Your task to perform on an android device: See recent photos Image 0: 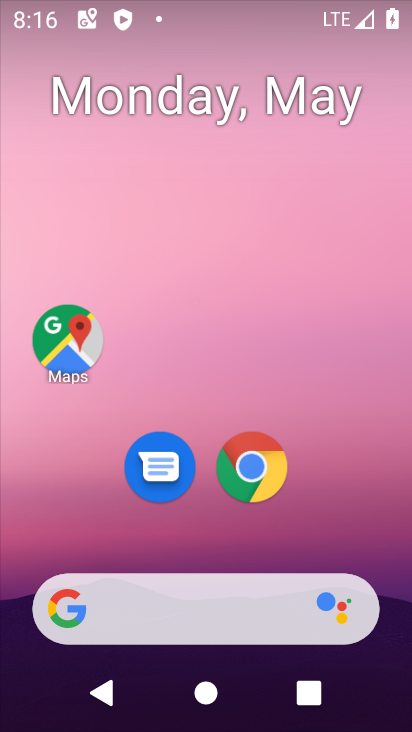
Step 0: drag from (336, 511) to (273, 59)
Your task to perform on an android device: See recent photos Image 1: 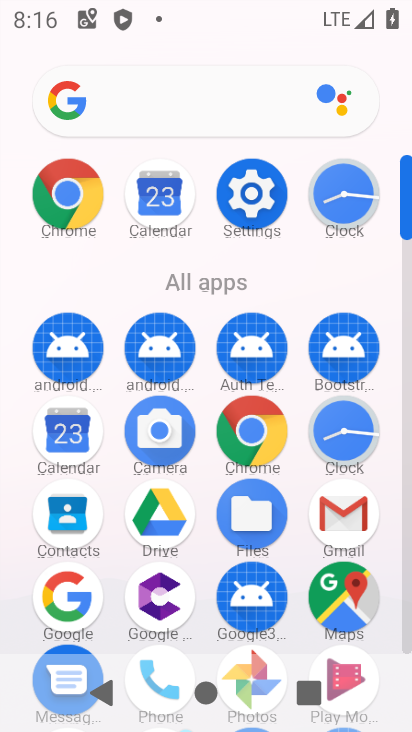
Step 1: drag from (308, 619) to (292, 145)
Your task to perform on an android device: See recent photos Image 2: 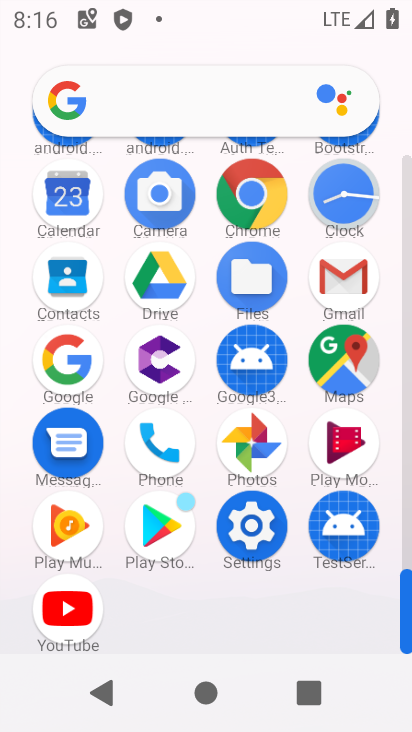
Step 2: click (254, 461)
Your task to perform on an android device: See recent photos Image 3: 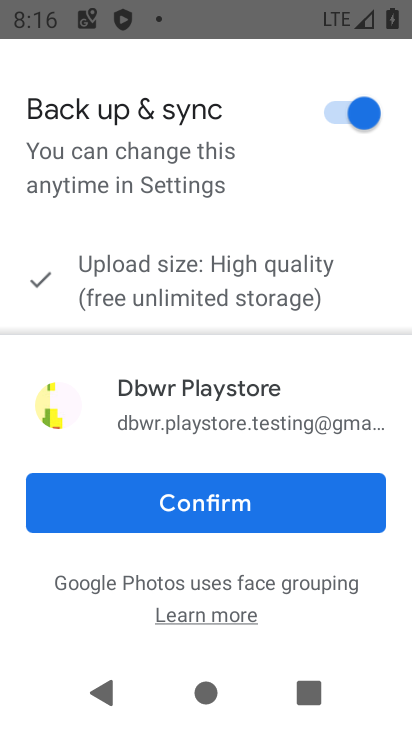
Step 3: click (239, 517)
Your task to perform on an android device: See recent photos Image 4: 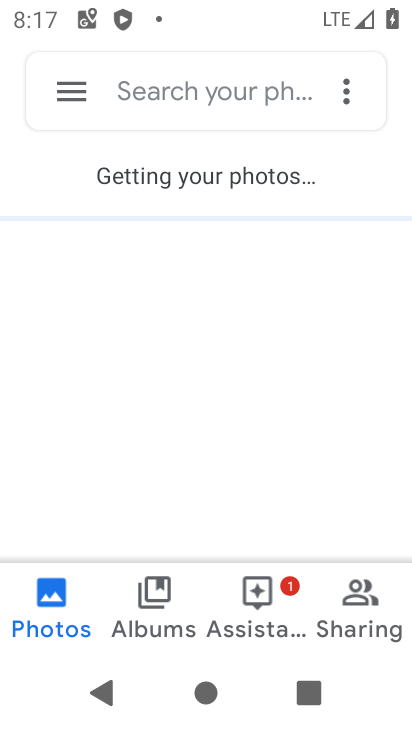
Step 4: click (168, 92)
Your task to perform on an android device: See recent photos Image 5: 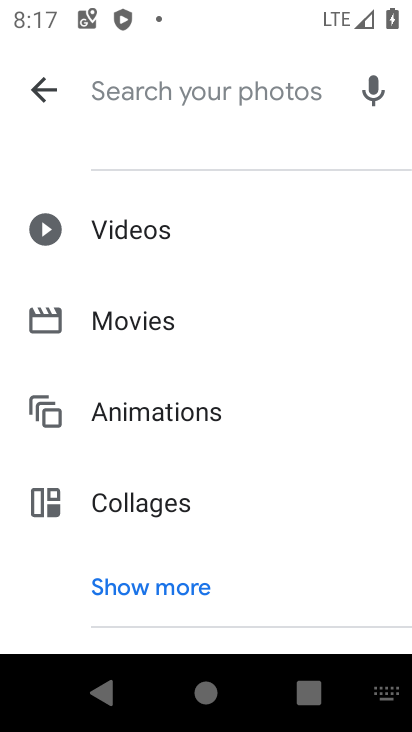
Step 5: type "recent photos"
Your task to perform on an android device: See recent photos Image 6: 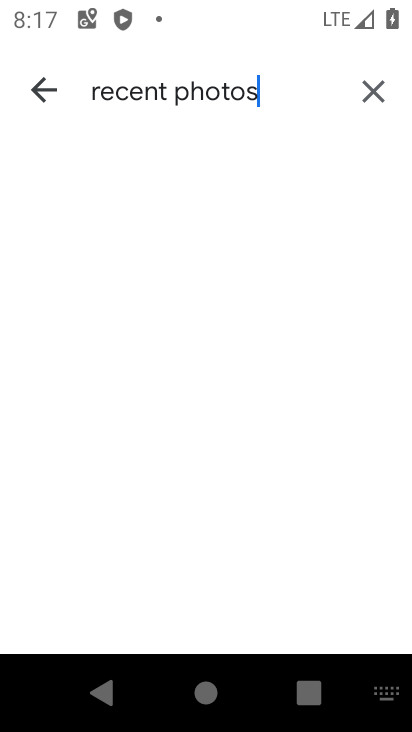
Step 6: click (371, 92)
Your task to perform on an android device: See recent photos Image 7: 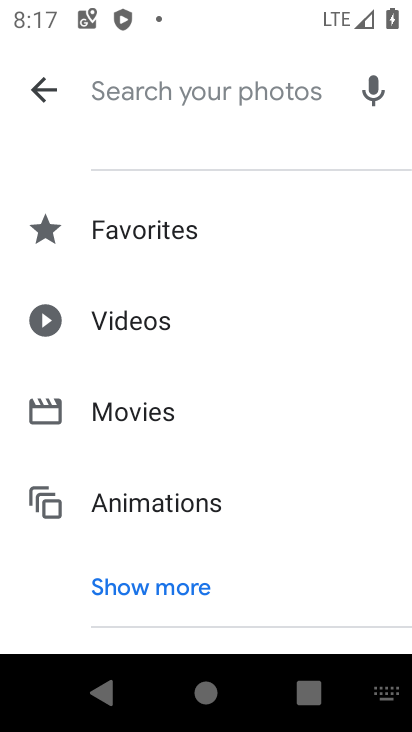
Step 7: type "recent"
Your task to perform on an android device: See recent photos Image 8: 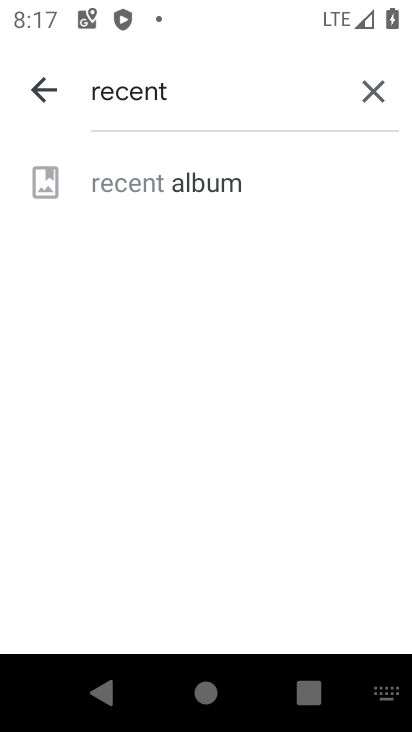
Step 8: click (200, 187)
Your task to perform on an android device: See recent photos Image 9: 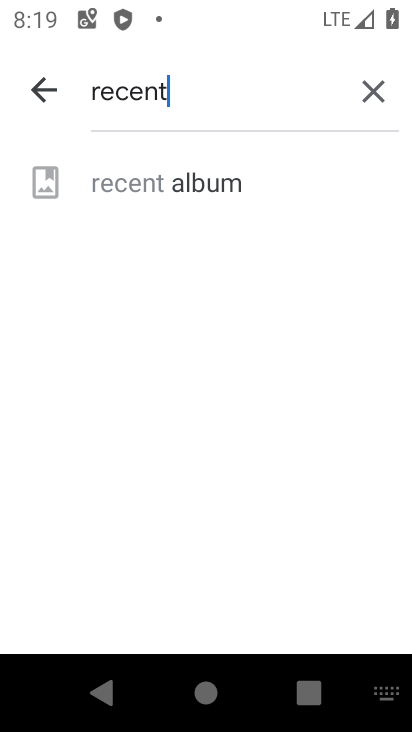
Step 9: task complete